Your task to perform on an android device: install app "Microsoft Authenticator" Image 0: 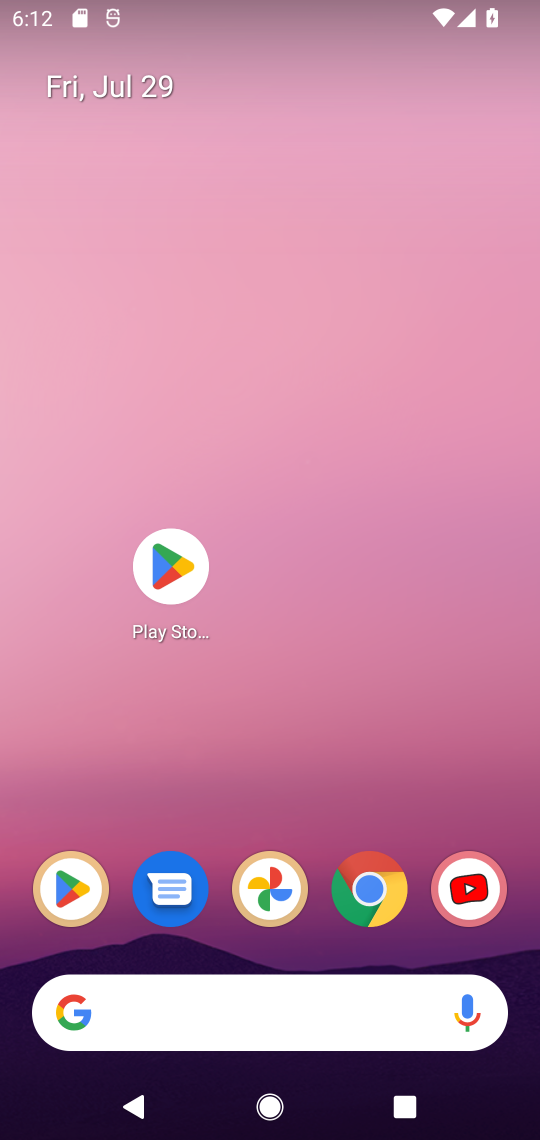
Step 0: press home button
Your task to perform on an android device: install app "Microsoft Authenticator" Image 1: 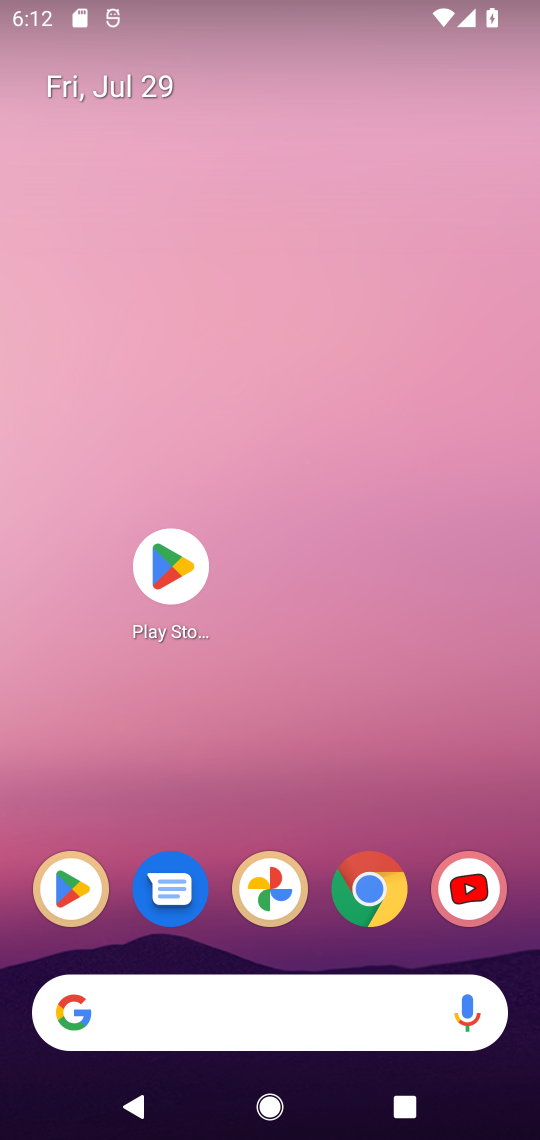
Step 1: click (169, 580)
Your task to perform on an android device: install app "Microsoft Authenticator" Image 2: 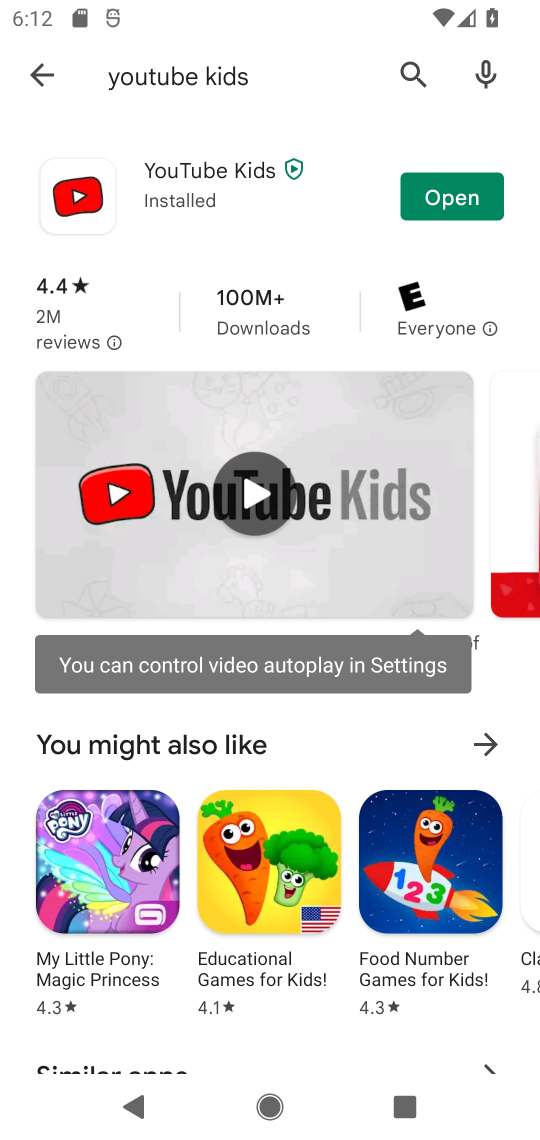
Step 2: click (409, 53)
Your task to perform on an android device: install app "Microsoft Authenticator" Image 3: 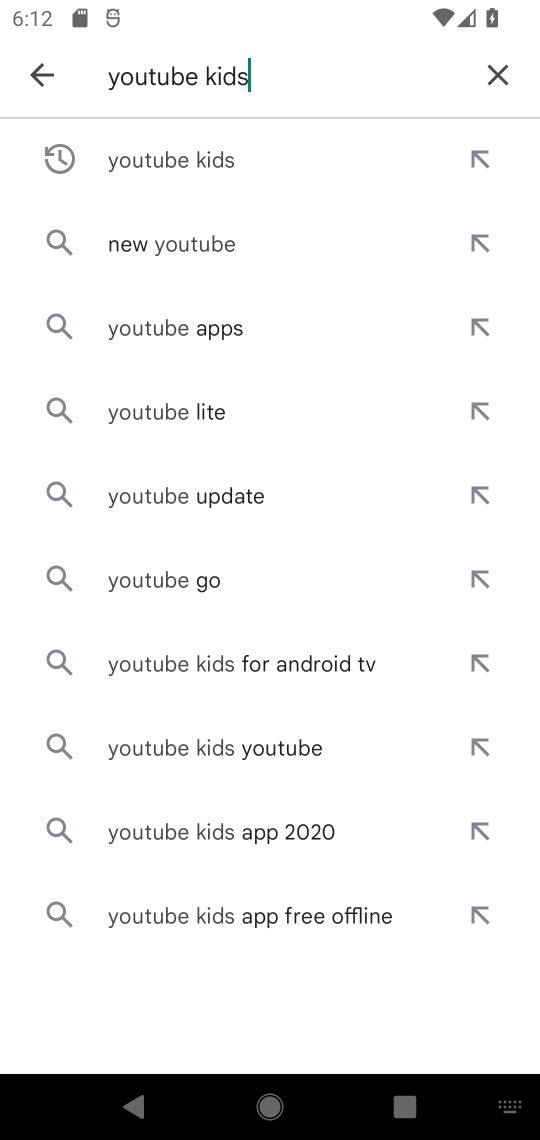
Step 3: click (489, 68)
Your task to perform on an android device: install app "Microsoft Authenticator" Image 4: 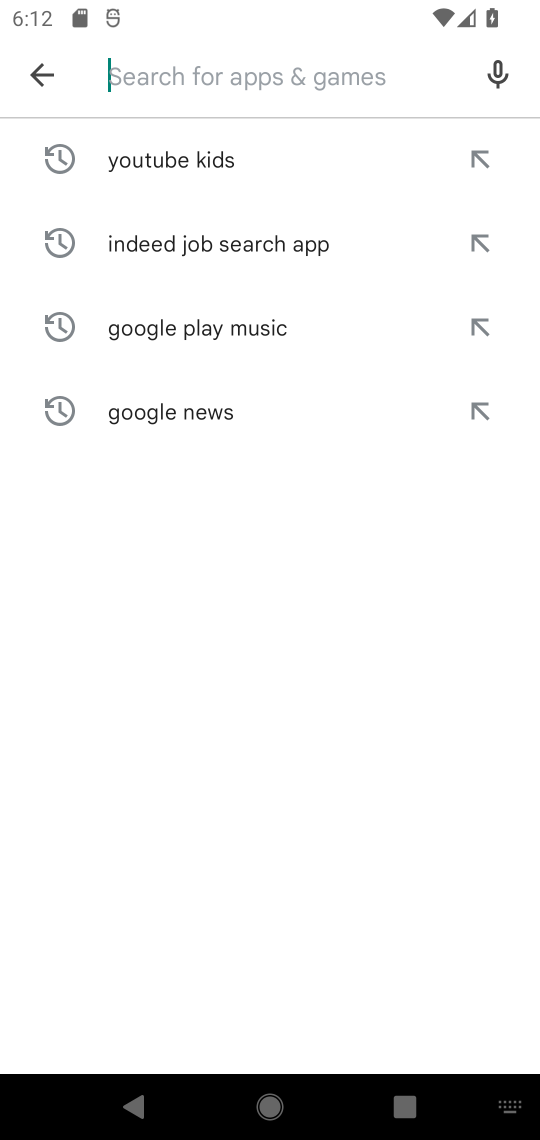
Step 4: type "Microsoft Authenticator"
Your task to perform on an android device: install app "Microsoft Authenticator" Image 5: 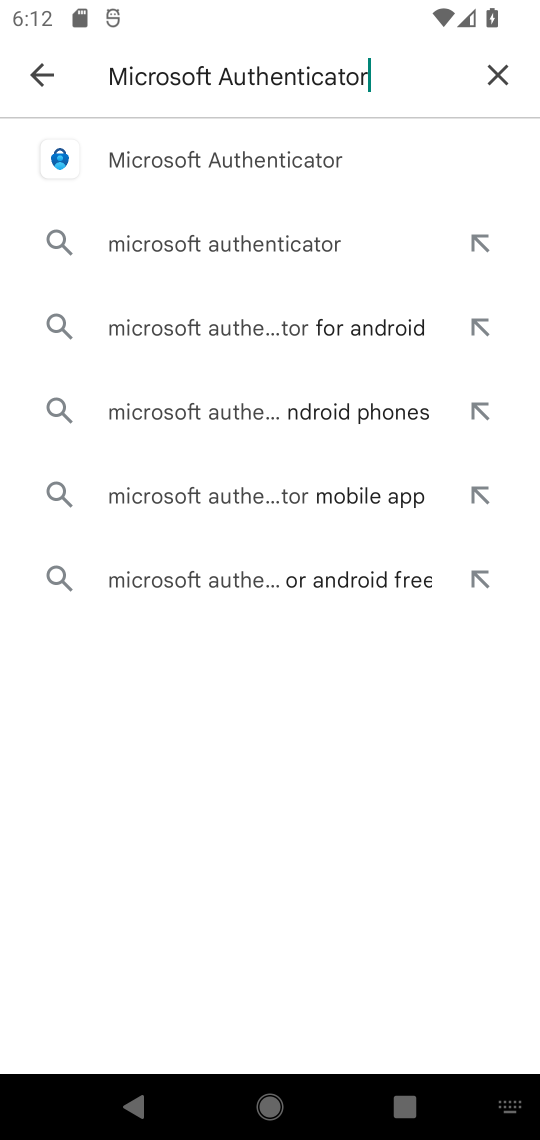
Step 5: click (319, 161)
Your task to perform on an android device: install app "Microsoft Authenticator" Image 6: 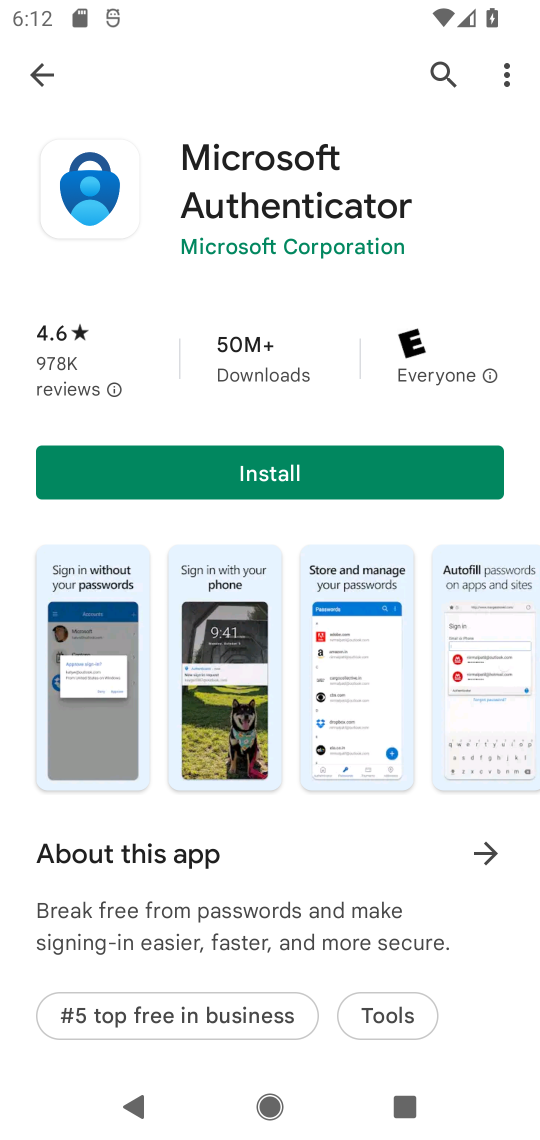
Step 6: click (258, 473)
Your task to perform on an android device: install app "Microsoft Authenticator" Image 7: 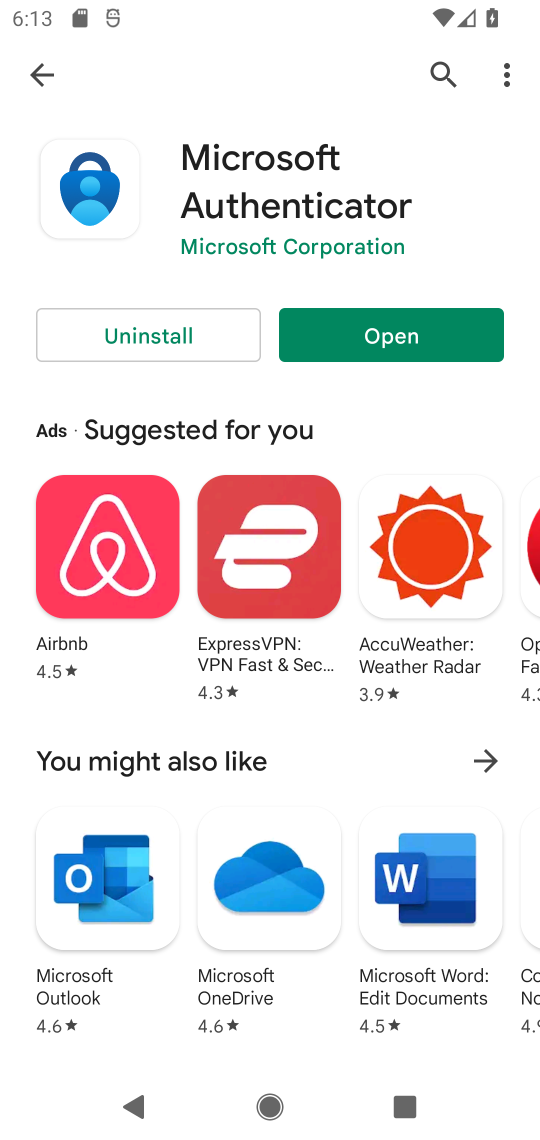
Step 7: task complete